Your task to perform on an android device: toggle airplane mode Image 0: 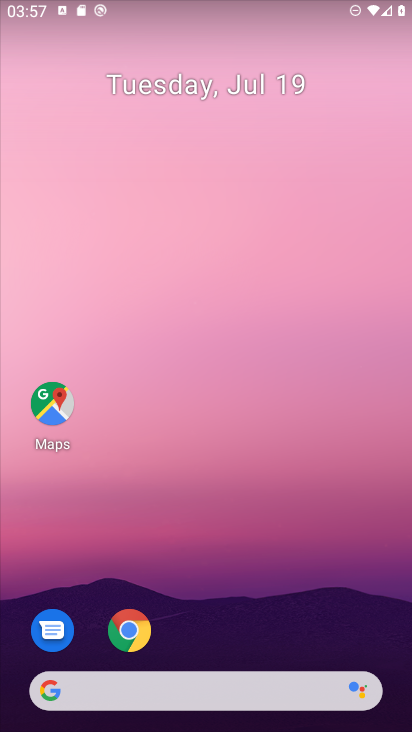
Step 0: drag from (378, 627) to (312, 146)
Your task to perform on an android device: toggle airplane mode Image 1: 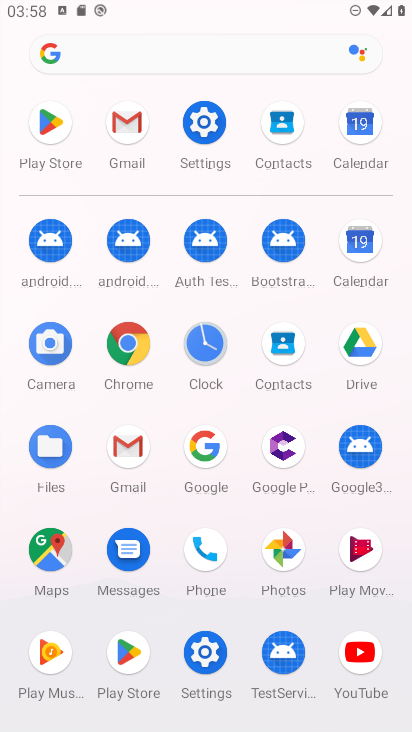
Step 1: click (207, 652)
Your task to perform on an android device: toggle airplane mode Image 2: 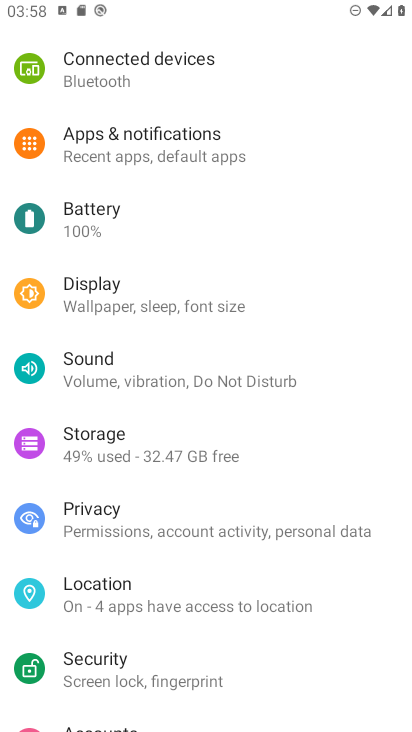
Step 2: drag from (295, 89) to (292, 252)
Your task to perform on an android device: toggle airplane mode Image 3: 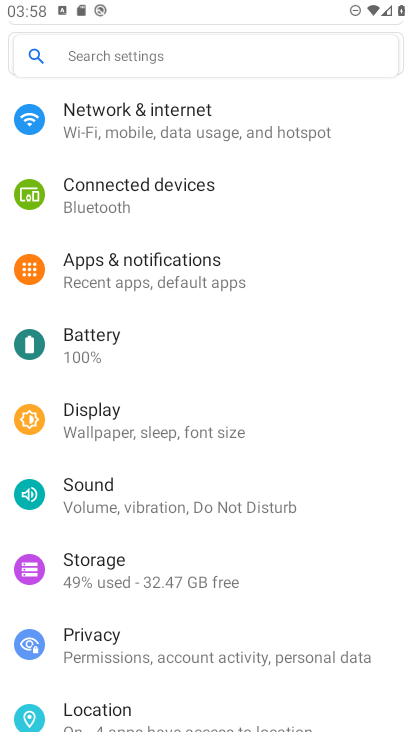
Step 3: click (121, 130)
Your task to perform on an android device: toggle airplane mode Image 4: 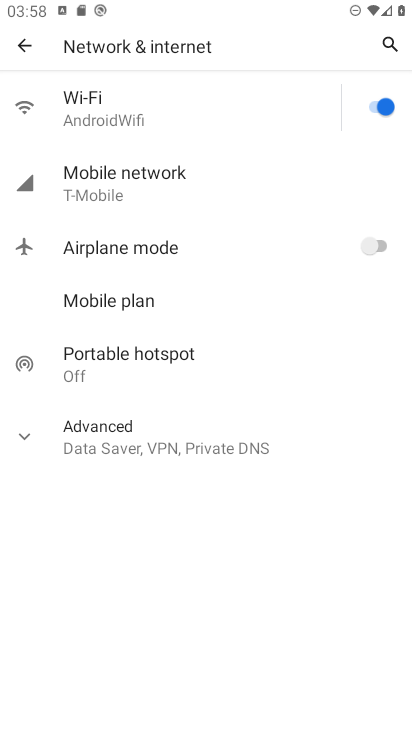
Step 4: click (386, 247)
Your task to perform on an android device: toggle airplane mode Image 5: 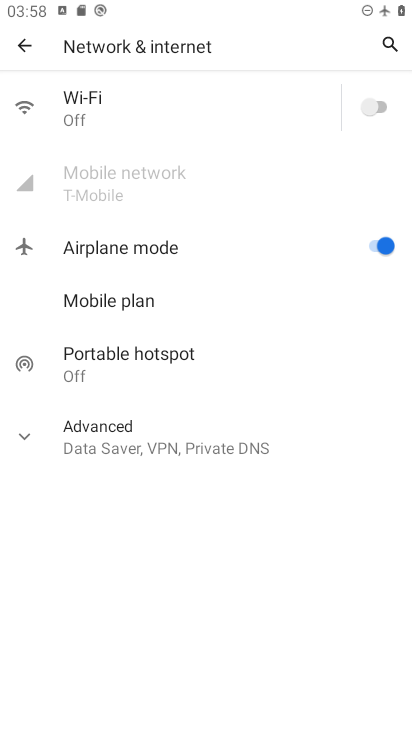
Step 5: task complete